Your task to perform on an android device: What's on my calendar tomorrow? Image 0: 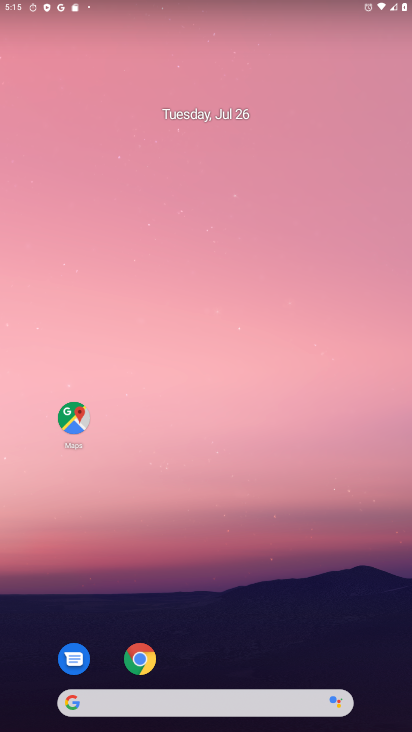
Step 0: press home button
Your task to perform on an android device: What's on my calendar tomorrow? Image 1: 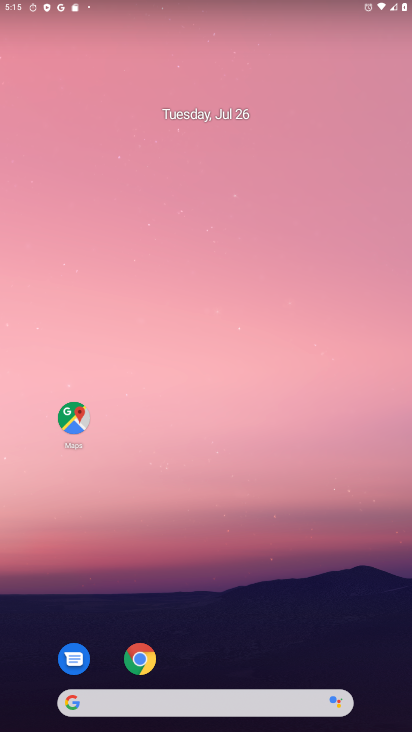
Step 1: drag from (221, 660) to (272, 0)
Your task to perform on an android device: What's on my calendar tomorrow? Image 2: 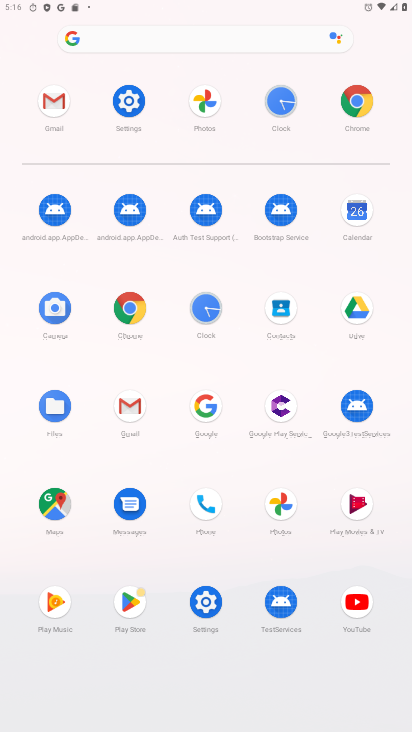
Step 2: click (353, 198)
Your task to perform on an android device: What's on my calendar tomorrow? Image 3: 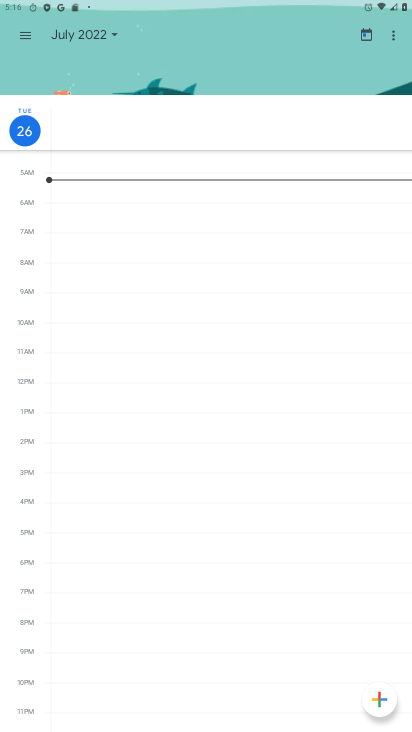
Step 3: click (111, 29)
Your task to perform on an android device: What's on my calendar tomorrow? Image 4: 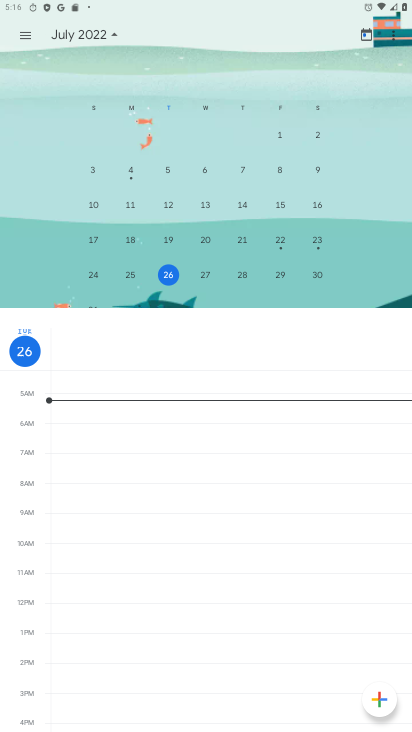
Step 4: click (196, 276)
Your task to perform on an android device: What's on my calendar tomorrow? Image 5: 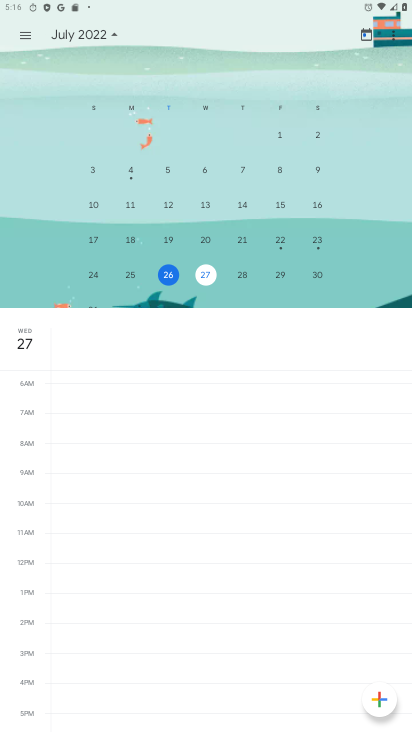
Step 5: click (97, 30)
Your task to perform on an android device: What's on my calendar tomorrow? Image 6: 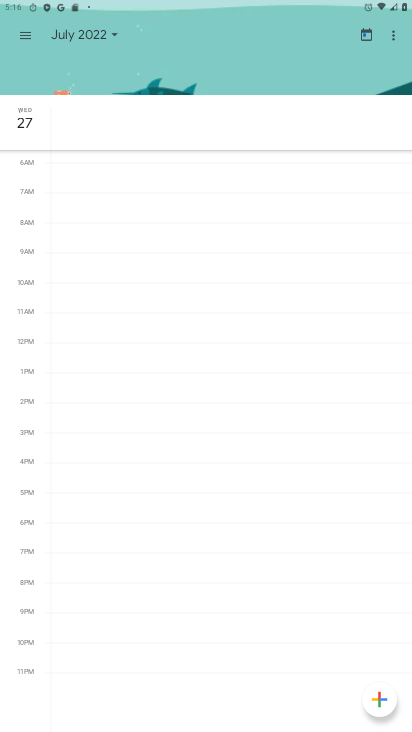
Step 6: task complete